Your task to perform on an android device: turn on priority inbox in the gmail app Image 0: 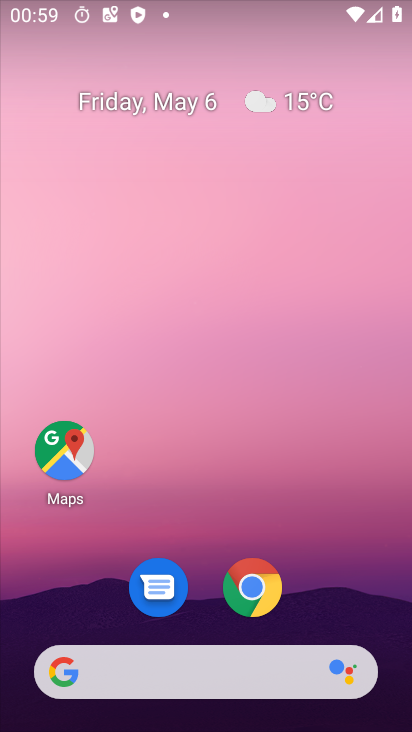
Step 0: drag from (378, 632) to (310, 292)
Your task to perform on an android device: turn on priority inbox in the gmail app Image 1: 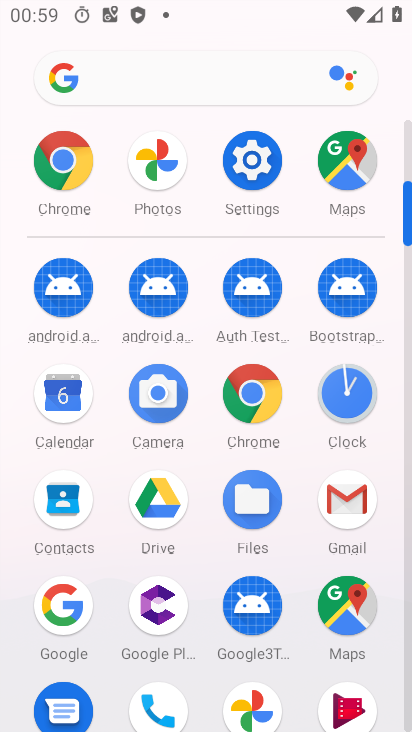
Step 1: click (373, 500)
Your task to perform on an android device: turn on priority inbox in the gmail app Image 2: 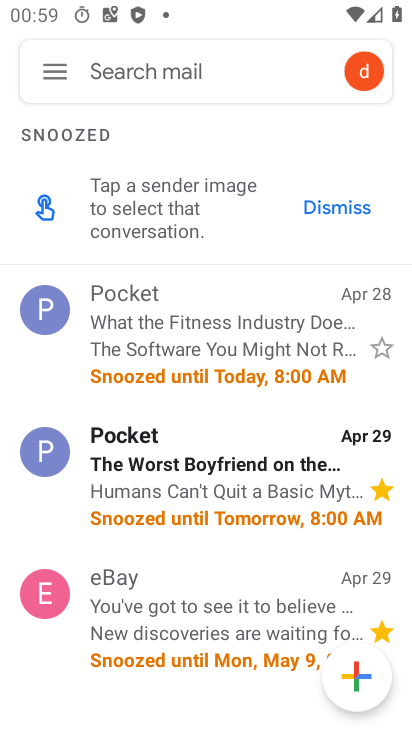
Step 2: click (49, 71)
Your task to perform on an android device: turn on priority inbox in the gmail app Image 3: 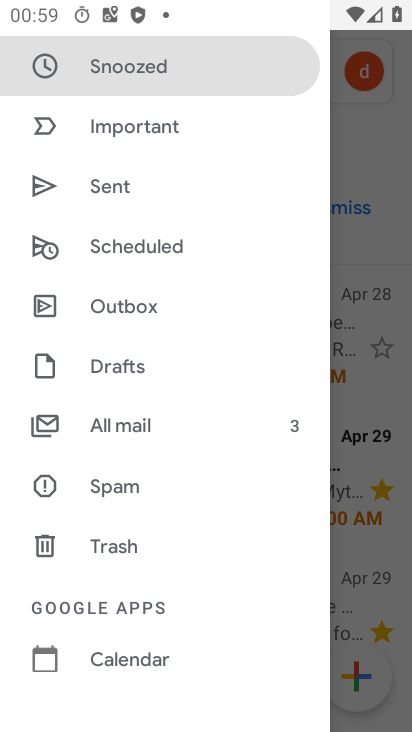
Step 3: drag from (240, 603) to (236, 349)
Your task to perform on an android device: turn on priority inbox in the gmail app Image 4: 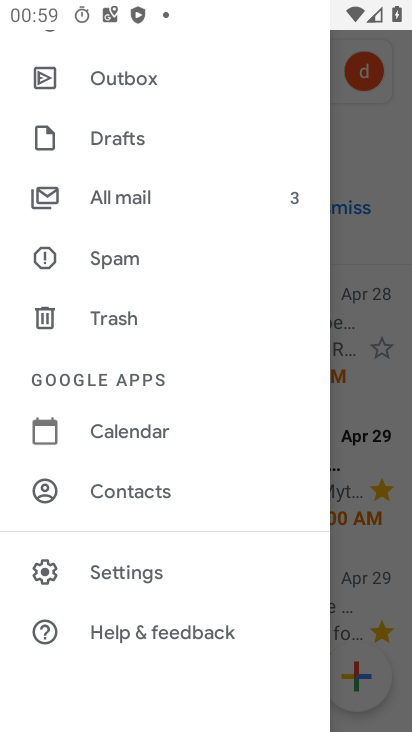
Step 4: click (132, 571)
Your task to perform on an android device: turn on priority inbox in the gmail app Image 5: 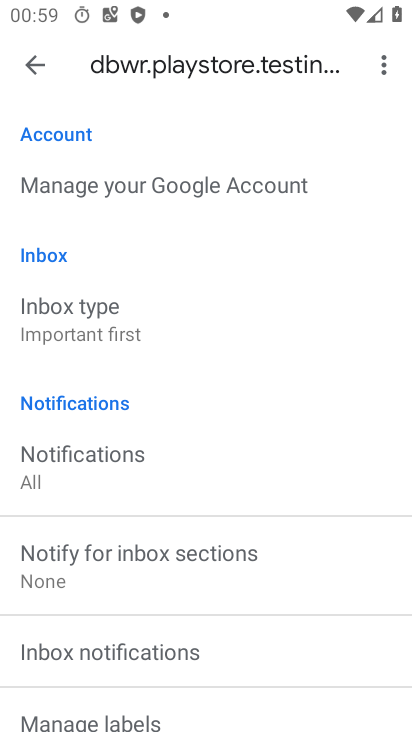
Step 5: click (99, 327)
Your task to perform on an android device: turn on priority inbox in the gmail app Image 6: 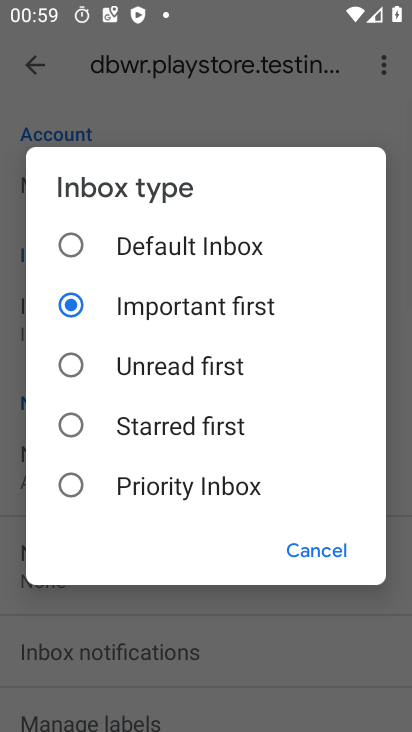
Step 6: click (75, 478)
Your task to perform on an android device: turn on priority inbox in the gmail app Image 7: 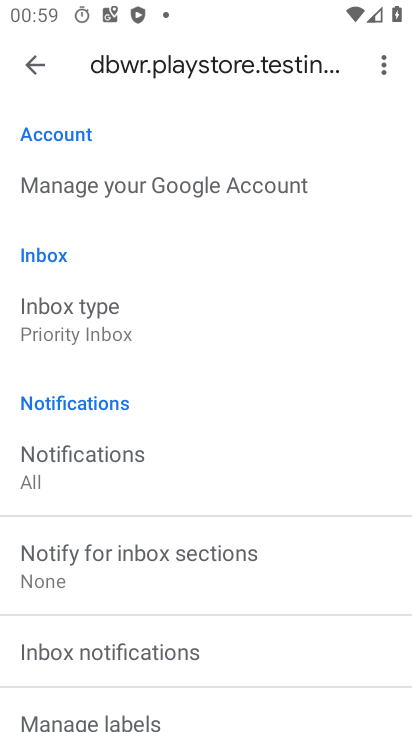
Step 7: task complete